Your task to perform on an android device: turn off notifications settings in the gmail app Image 0: 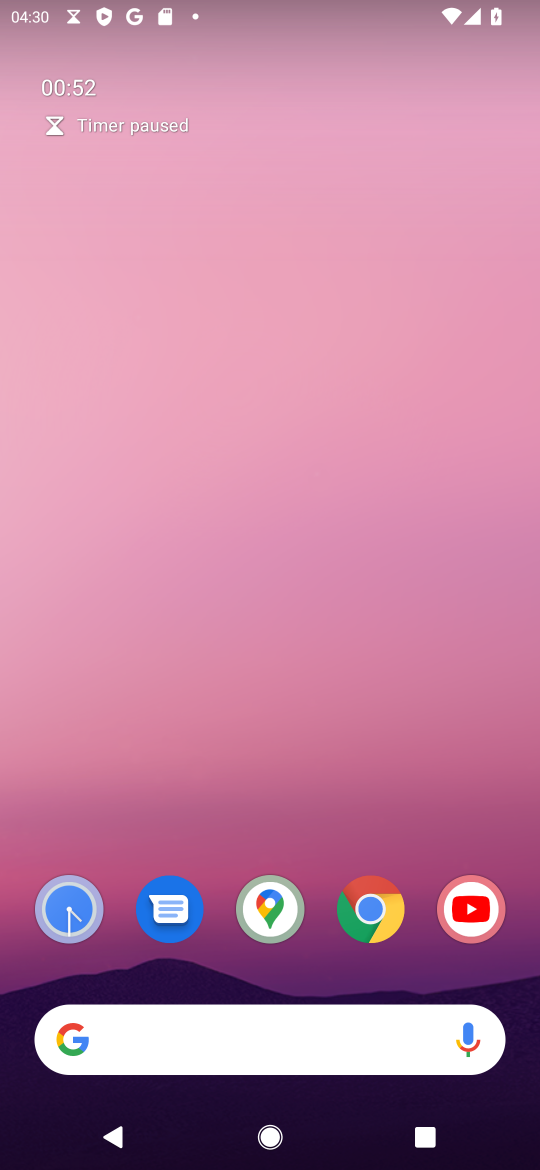
Step 0: drag from (294, 1006) to (406, 428)
Your task to perform on an android device: turn off notifications settings in the gmail app Image 1: 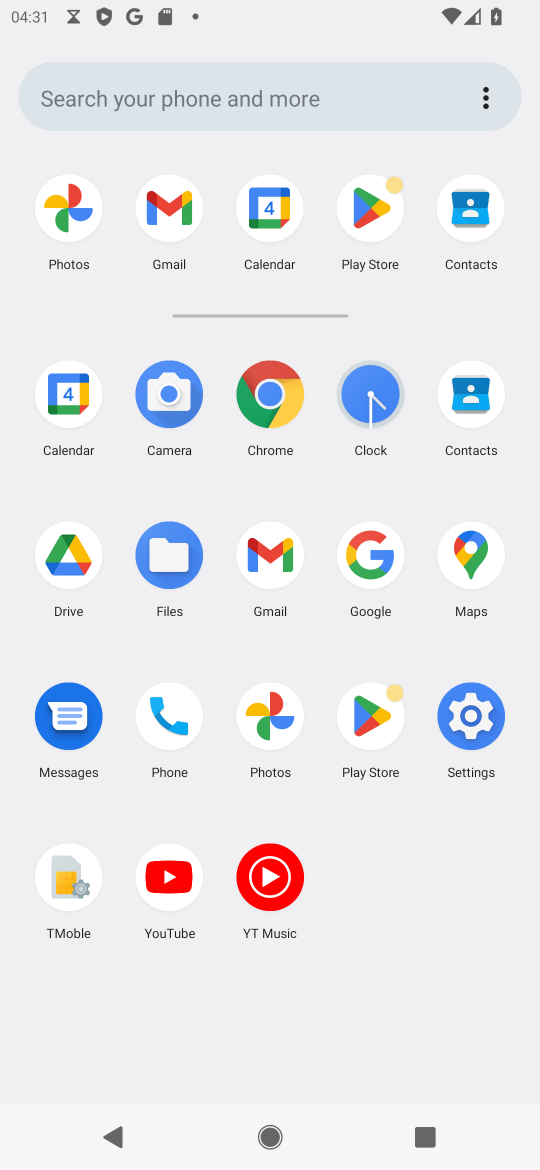
Step 1: click (277, 567)
Your task to perform on an android device: turn off notifications settings in the gmail app Image 2: 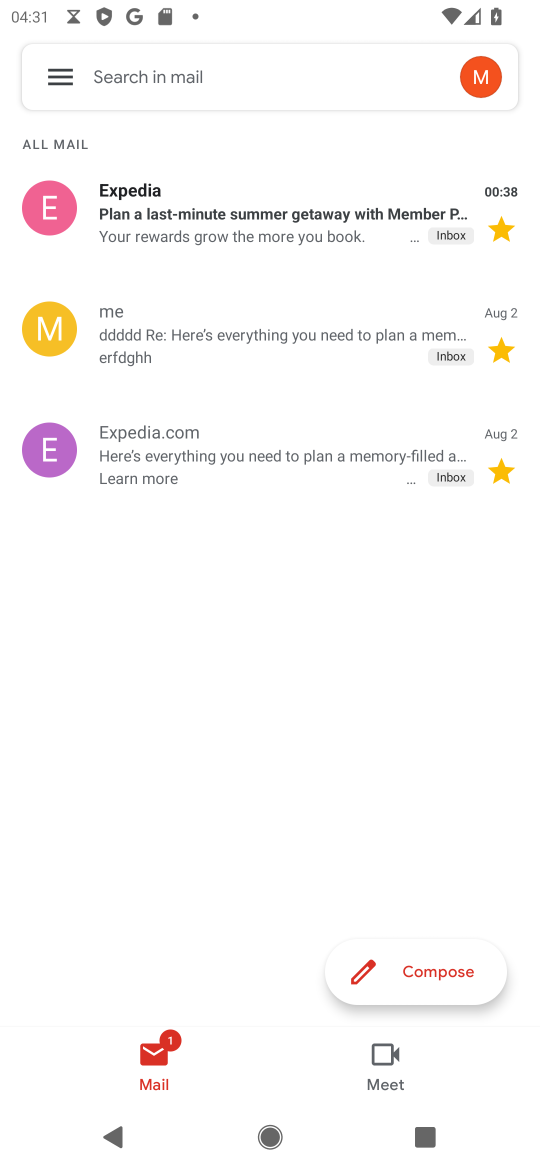
Step 2: click (62, 66)
Your task to perform on an android device: turn off notifications settings in the gmail app Image 3: 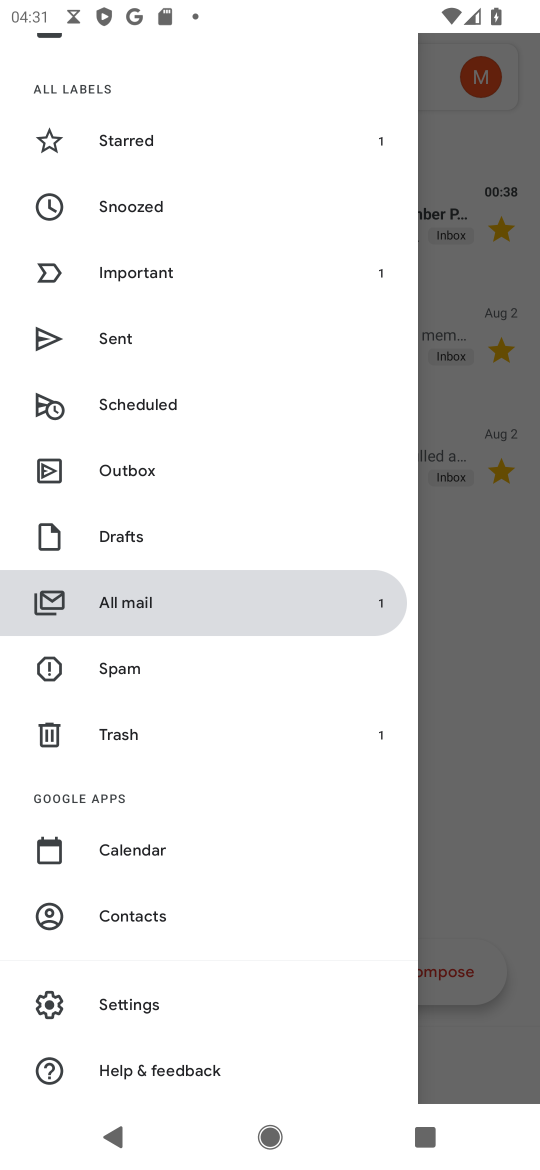
Step 3: click (138, 1008)
Your task to perform on an android device: turn off notifications settings in the gmail app Image 4: 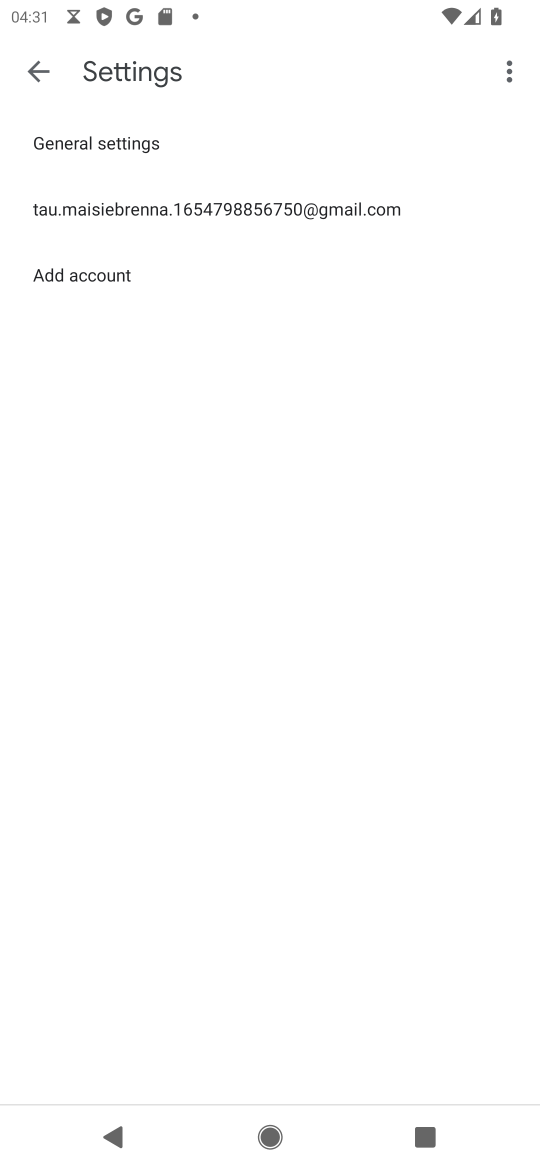
Step 4: click (331, 206)
Your task to perform on an android device: turn off notifications settings in the gmail app Image 5: 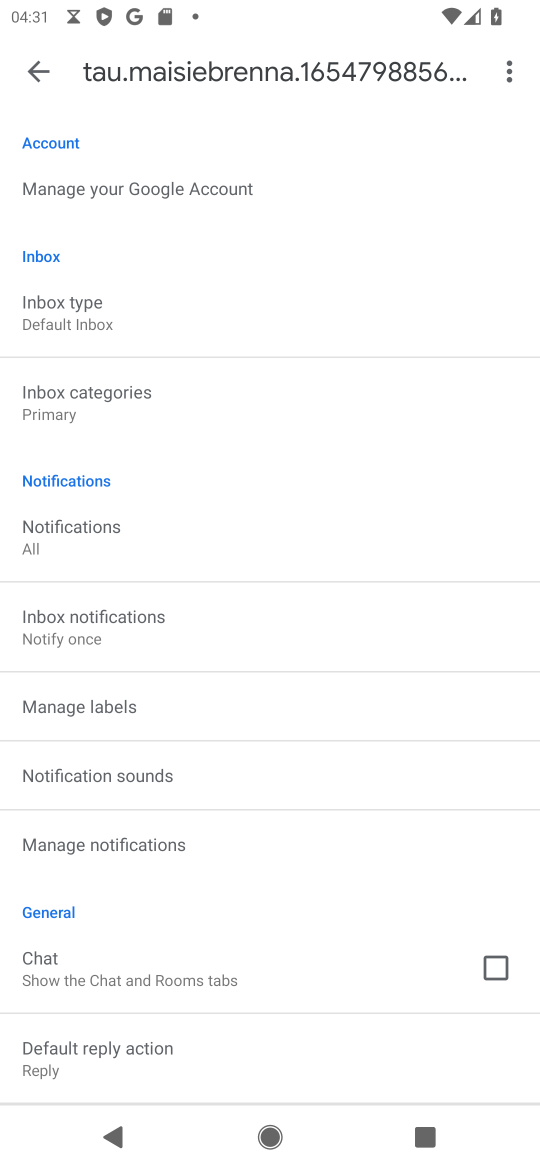
Step 5: click (98, 546)
Your task to perform on an android device: turn off notifications settings in the gmail app Image 6: 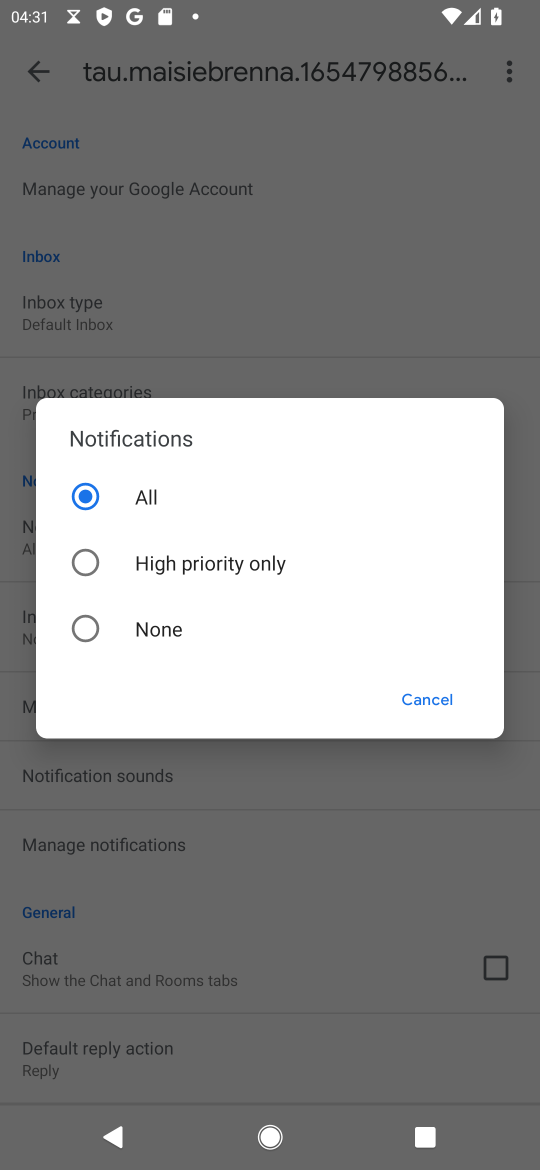
Step 6: click (73, 630)
Your task to perform on an android device: turn off notifications settings in the gmail app Image 7: 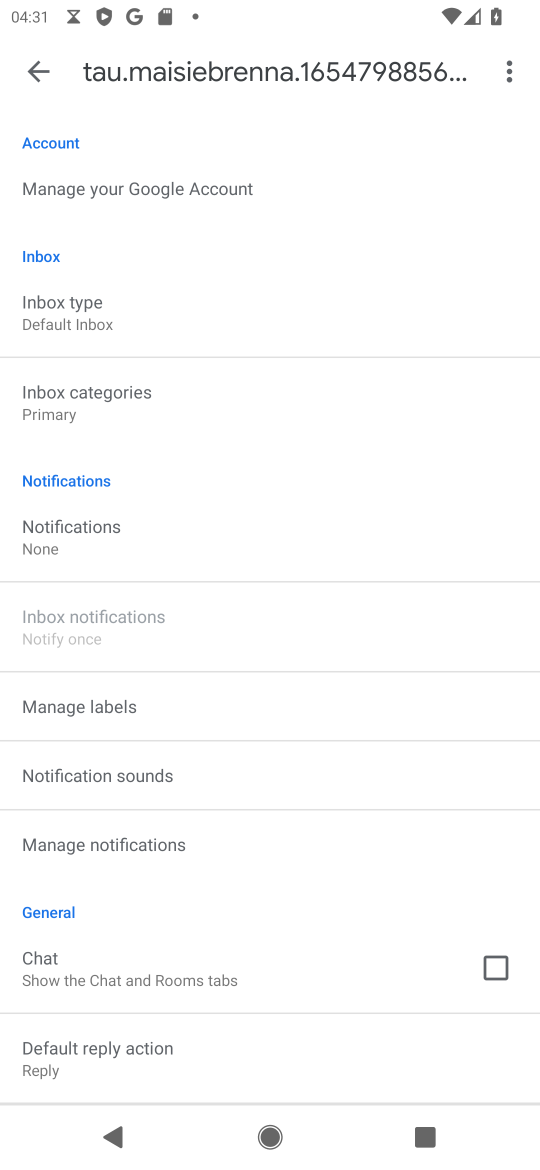
Step 7: task complete